Your task to perform on an android device: turn on the 24-hour format for clock Image 0: 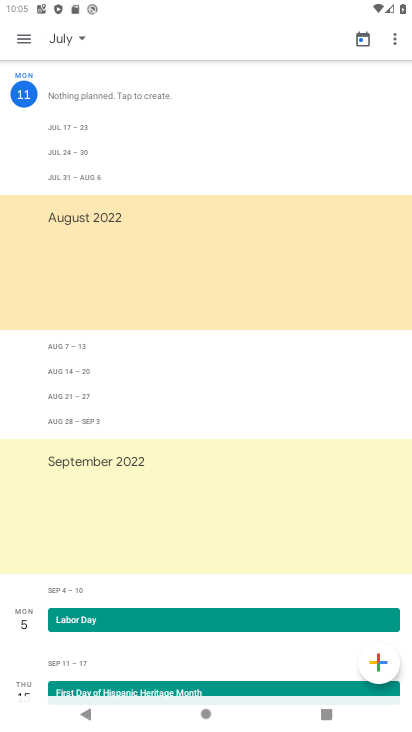
Step 0: press home button
Your task to perform on an android device: turn on the 24-hour format for clock Image 1: 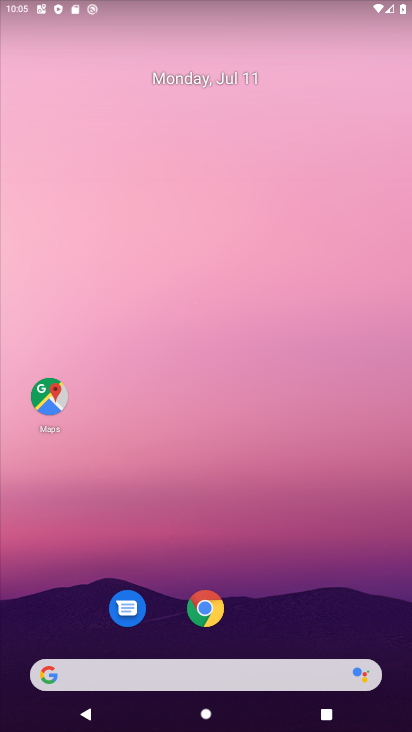
Step 1: drag from (30, 702) to (353, 66)
Your task to perform on an android device: turn on the 24-hour format for clock Image 2: 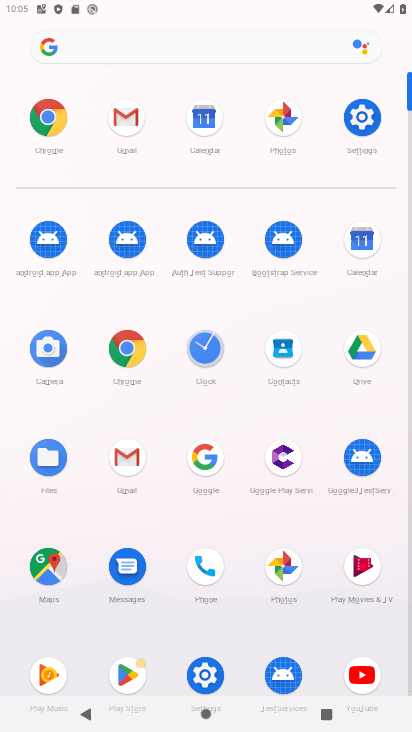
Step 2: click (198, 341)
Your task to perform on an android device: turn on the 24-hour format for clock Image 3: 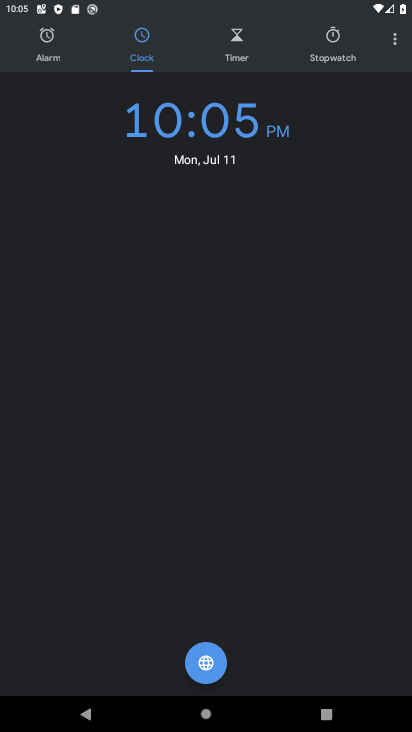
Step 3: click (388, 41)
Your task to perform on an android device: turn on the 24-hour format for clock Image 4: 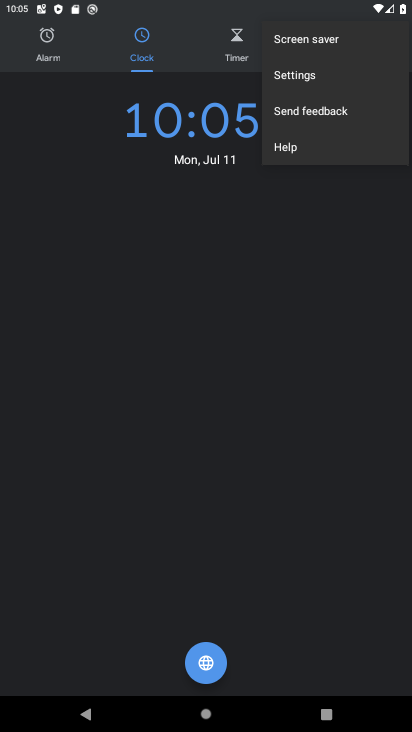
Step 4: click (300, 76)
Your task to perform on an android device: turn on the 24-hour format for clock Image 5: 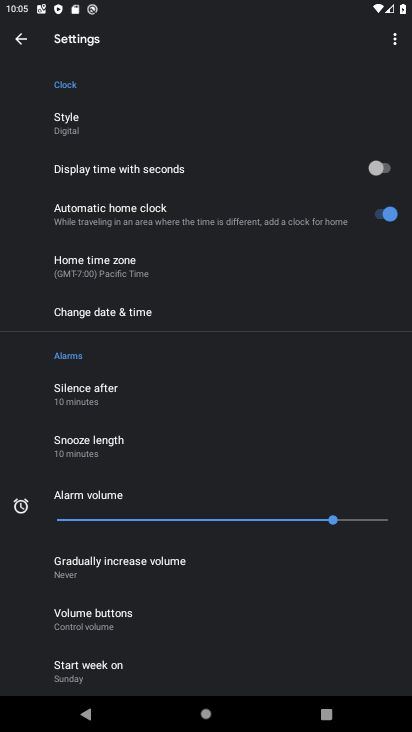
Step 5: drag from (218, 670) to (220, 138)
Your task to perform on an android device: turn on the 24-hour format for clock Image 6: 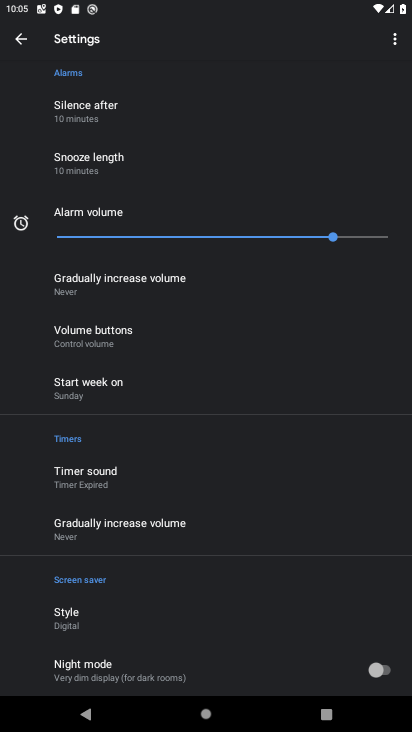
Step 6: drag from (250, 611) to (282, 363)
Your task to perform on an android device: turn on the 24-hour format for clock Image 7: 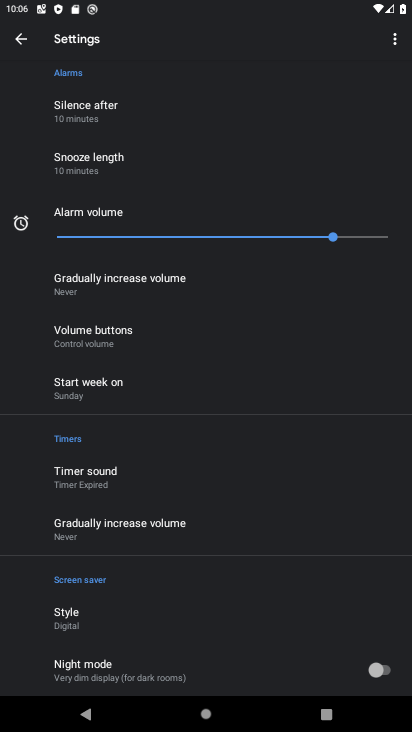
Step 7: click (115, 484)
Your task to perform on an android device: turn on the 24-hour format for clock Image 8: 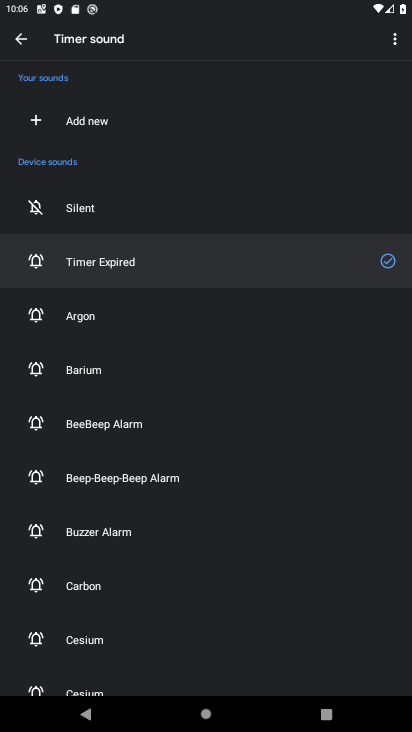
Step 8: click (16, 46)
Your task to perform on an android device: turn on the 24-hour format for clock Image 9: 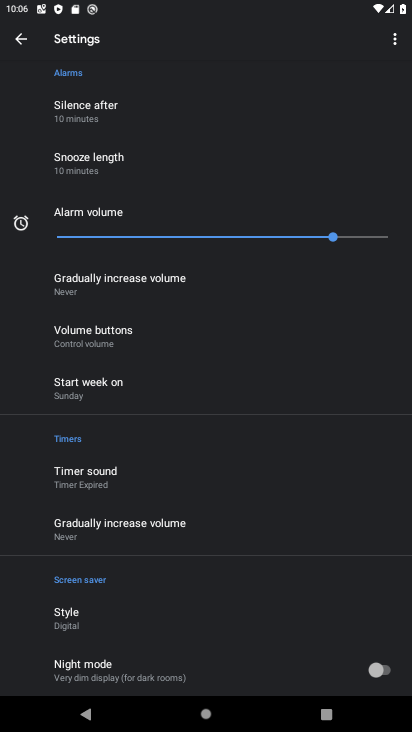
Step 9: drag from (185, 627) to (190, 317)
Your task to perform on an android device: turn on the 24-hour format for clock Image 10: 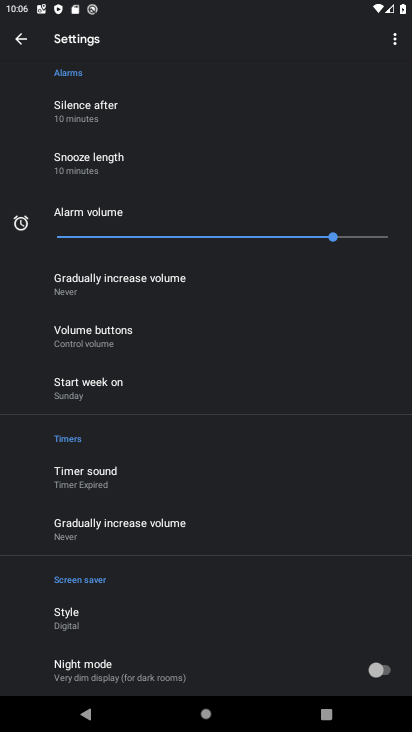
Step 10: drag from (197, 77) to (203, 650)
Your task to perform on an android device: turn on the 24-hour format for clock Image 11: 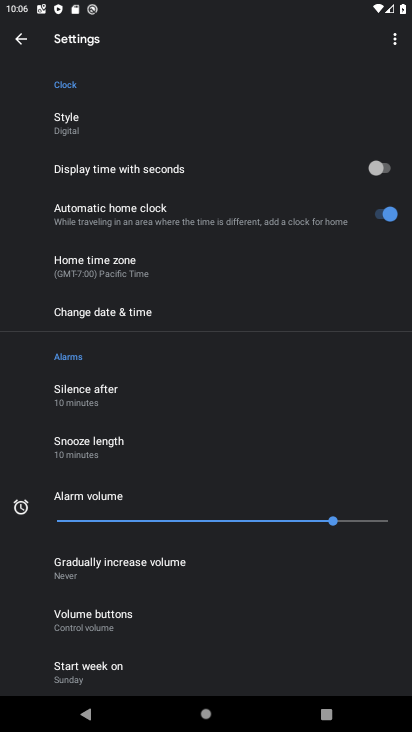
Step 11: drag from (275, 67) to (274, 545)
Your task to perform on an android device: turn on the 24-hour format for clock Image 12: 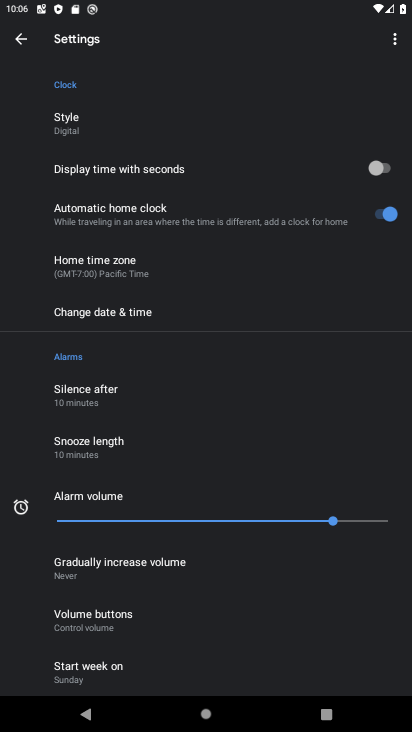
Step 12: click (19, 41)
Your task to perform on an android device: turn on the 24-hour format for clock Image 13: 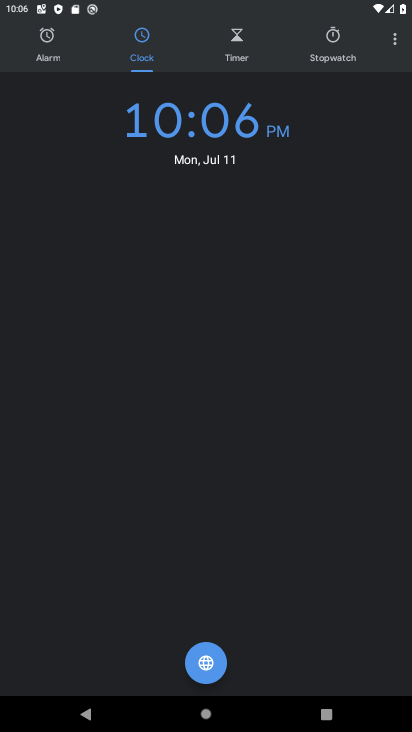
Step 13: click (158, 136)
Your task to perform on an android device: turn on the 24-hour format for clock Image 14: 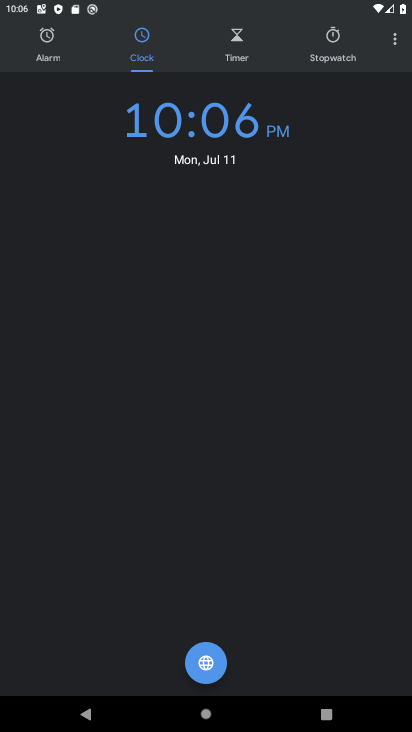
Step 14: task complete